Your task to perform on an android device: check google app version Image 0: 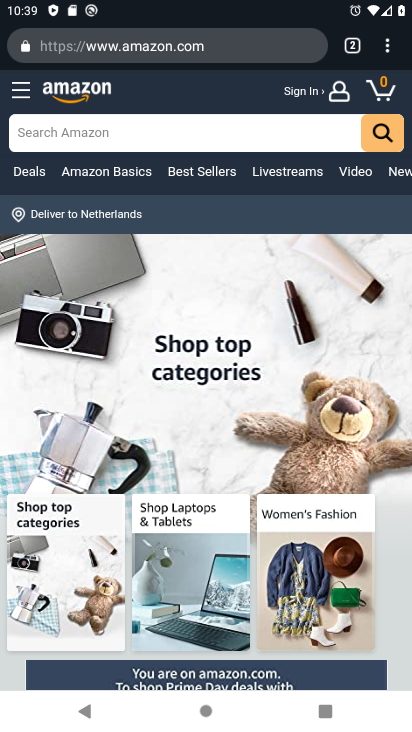
Step 0: press home button
Your task to perform on an android device: check google app version Image 1: 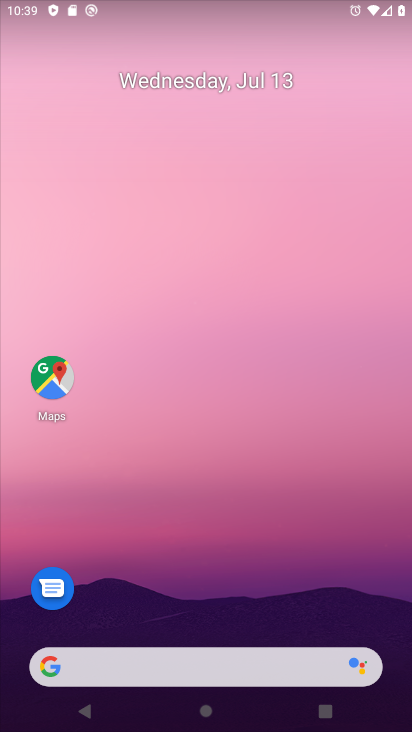
Step 1: drag from (201, 679) to (368, 110)
Your task to perform on an android device: check google app version Image 2: 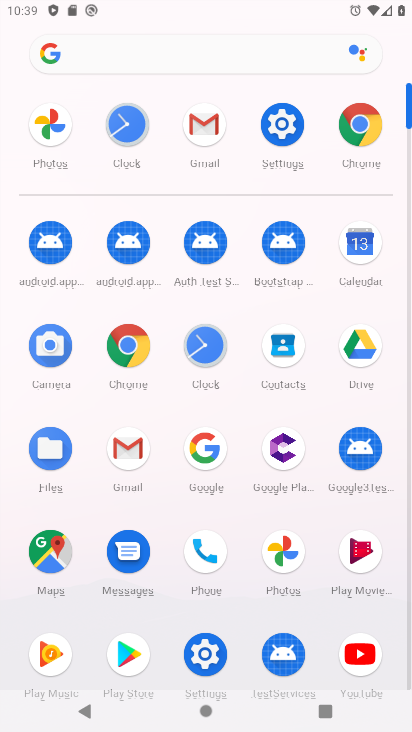
Step 2: click (220, 447)
Your task to perform on an android device: check google app version Image 3: 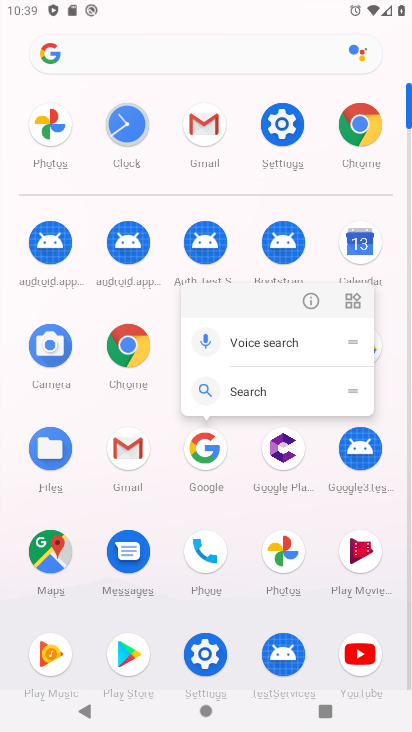
Step 3: click (314, 302)
Your task to perform on an android device: check google app version Image 4: 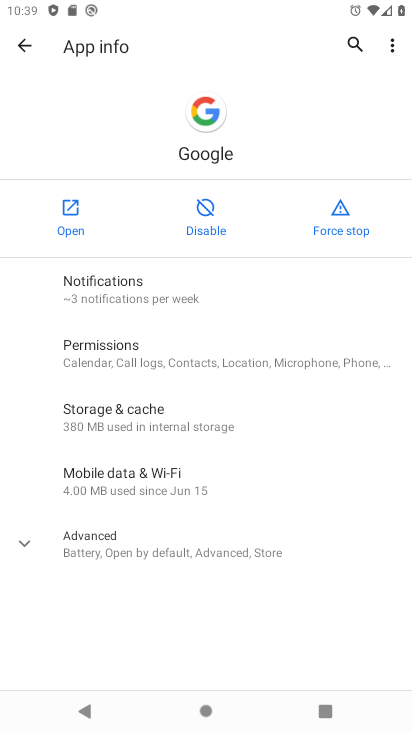
Step 4: click (181, 556)
Your task to perform on an android device: check google app version Image 5: 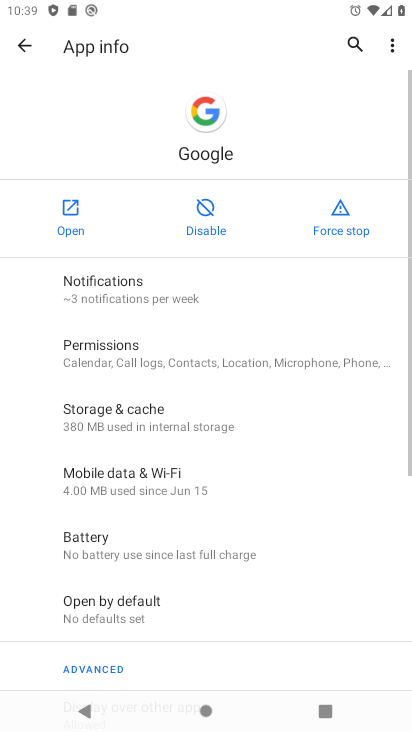
Step 5: task complete